Your task to perform on an android device: open app "Viber Messenger" (install if not already installed) Image 0: 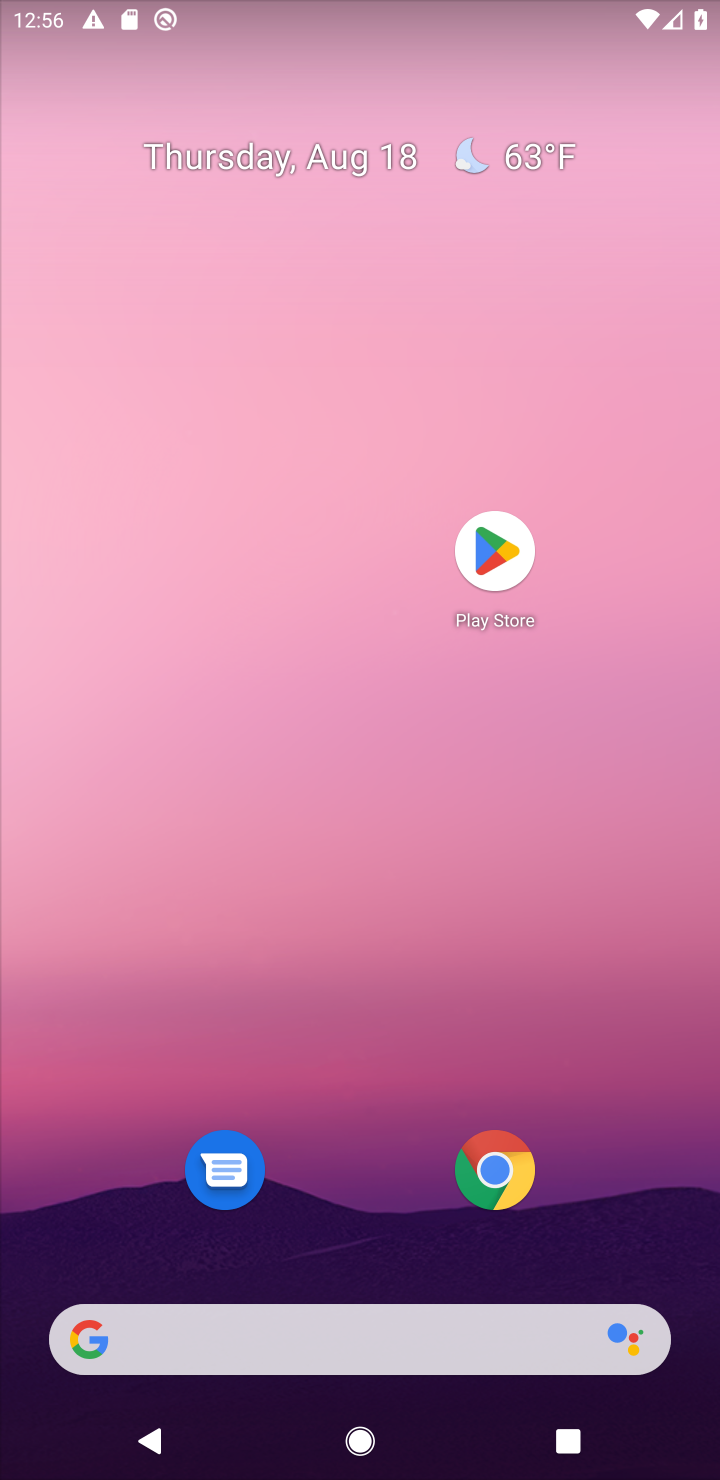
Step 0: click (496, 550)
Your task to perform on an android device: open app "Viber Messenger" (install if not already installed) Image 1: 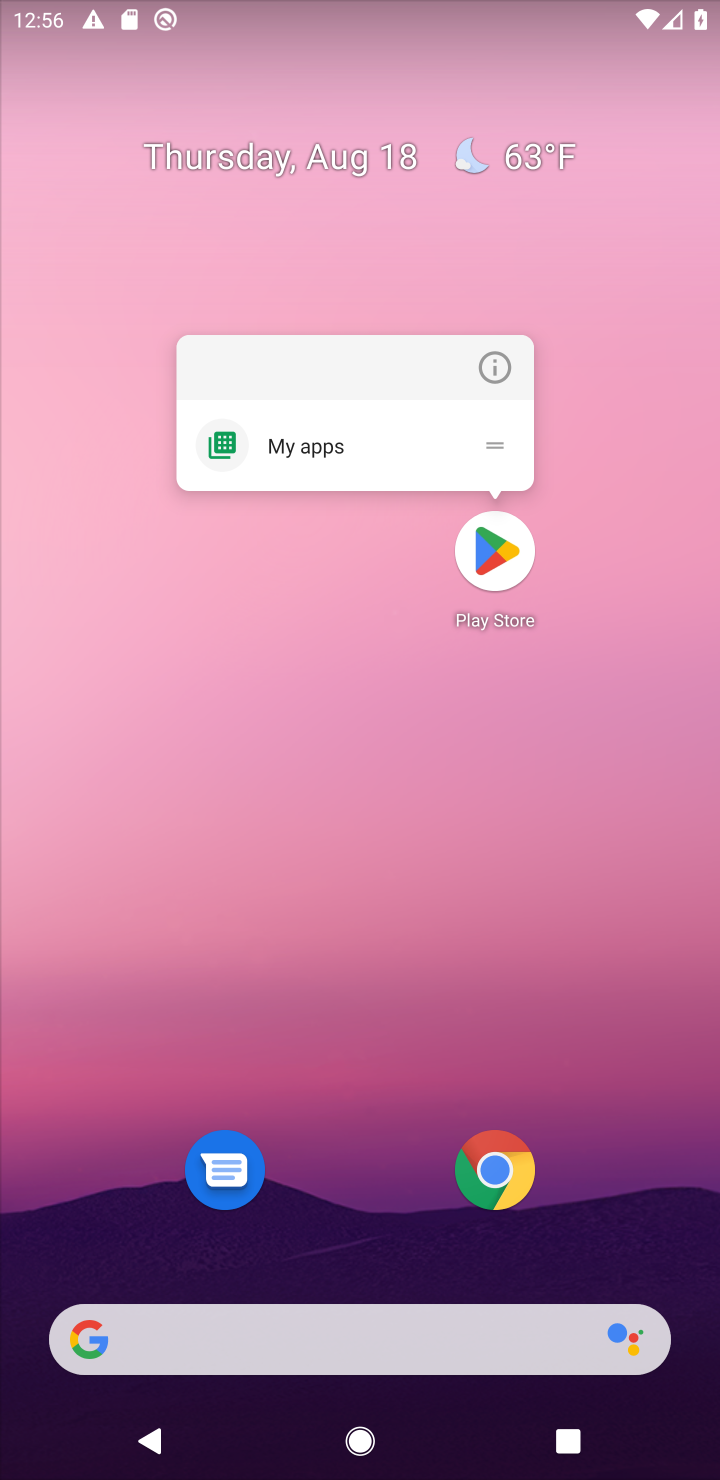
Step 1: click (496, 550)
Your task to perform on an android device: open app "Viber Messenger" (install if not already installed) Image 2: 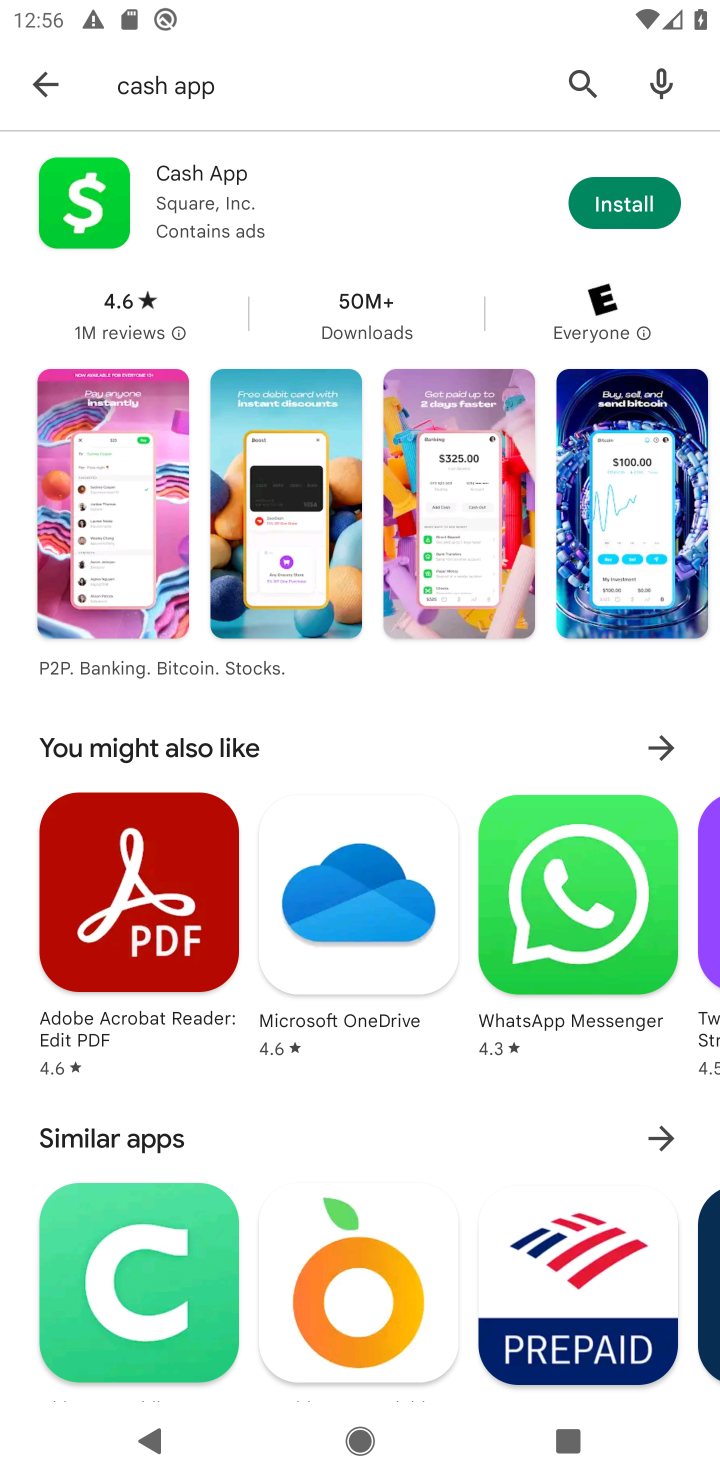
Step 2: click (580, 82)
Your task to perform on an android device: open app "Viber Messenger" (install if not already installed) Image 3: 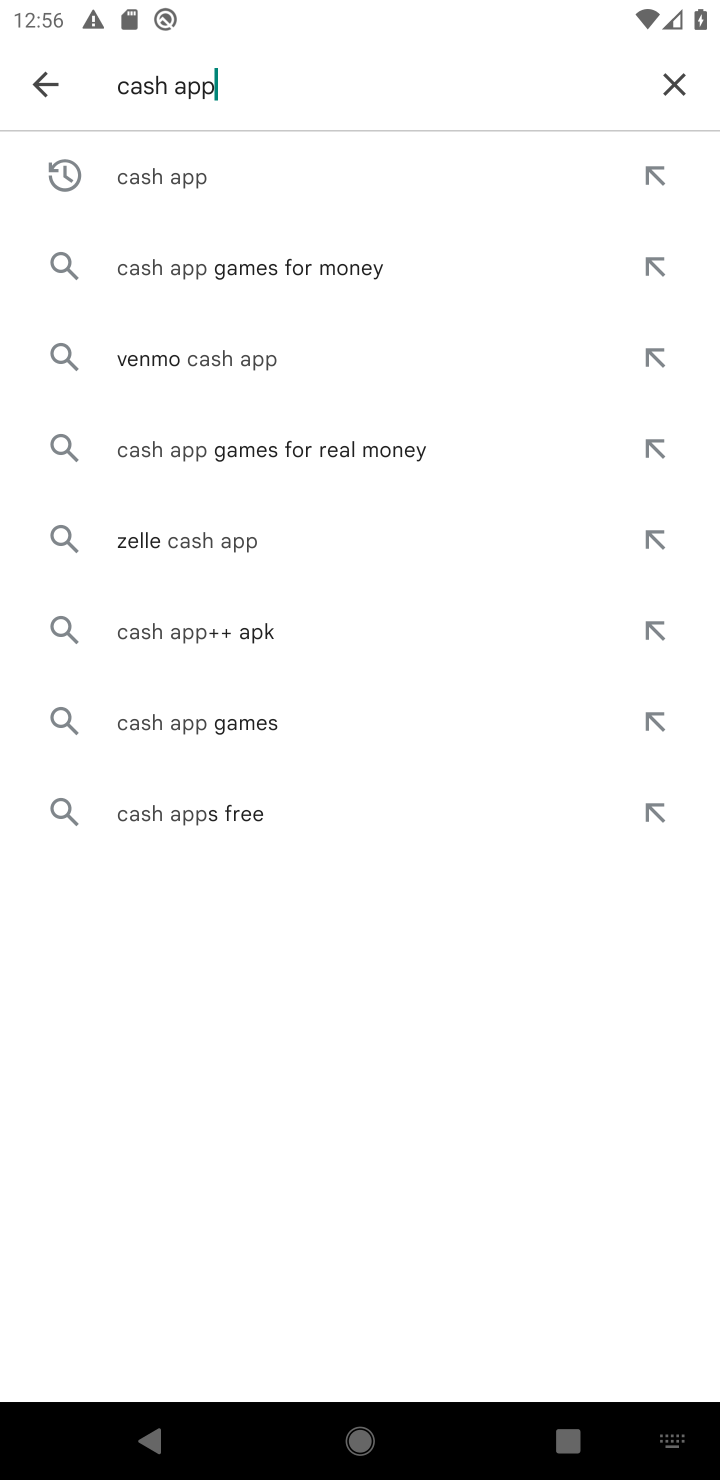
Step 3: click (669, 82)
Your task to perform on an android device: open app "Viber Messenger" (install if not already installed) Image 4: 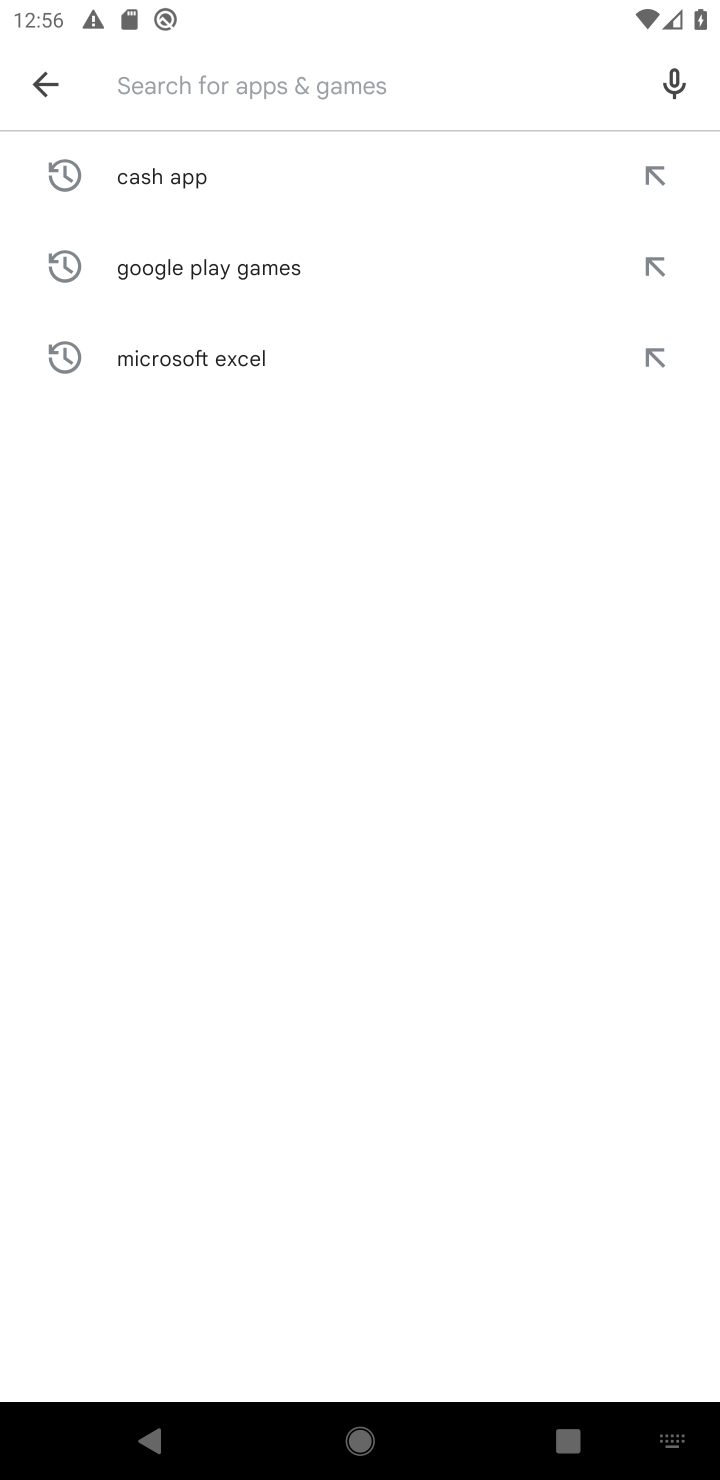
Step 4: type "Viber Messenger"
Your task to perform on an android device: open app "Viber Messenger" (install if not already installed) Image 5: 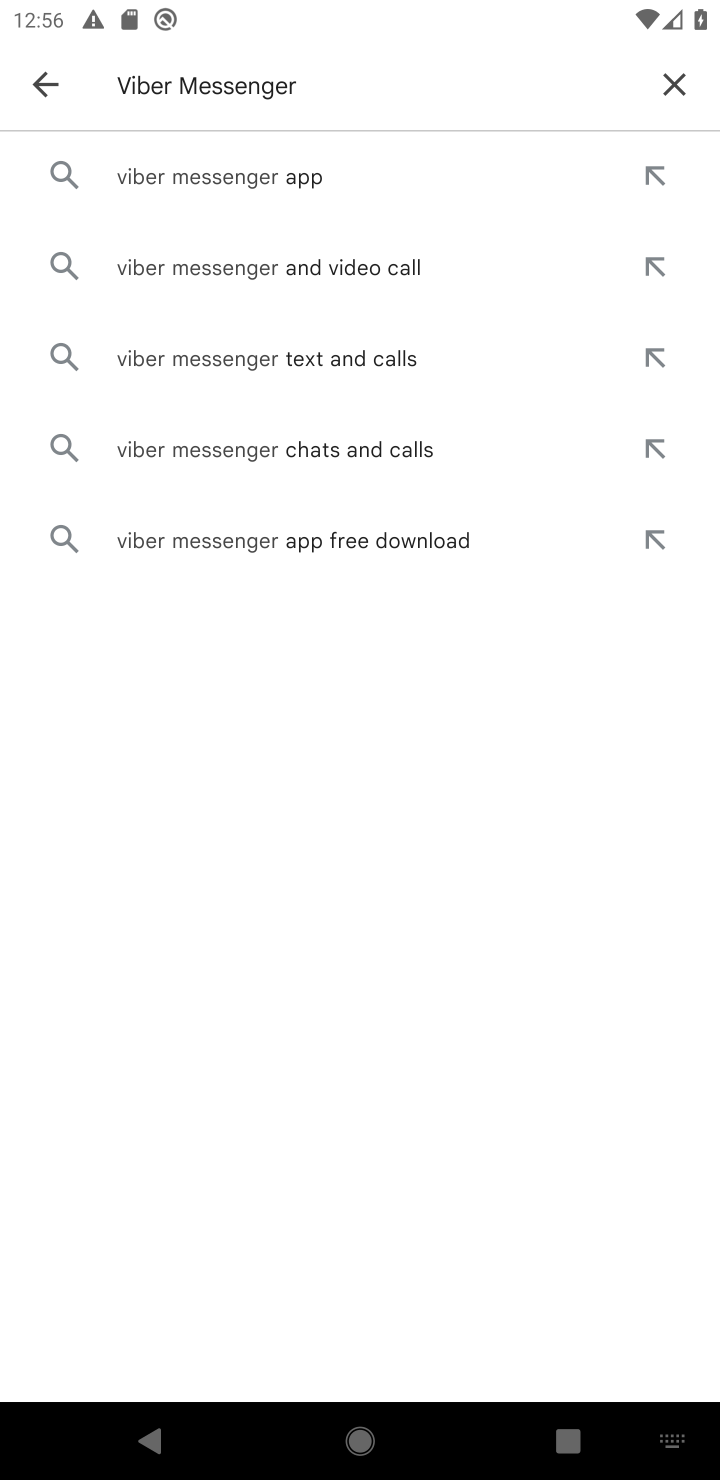
Step 5: click (265, 177)
Your task to perform on an android device: open app "Viber Messenger" (install if not already installed) Image 6: 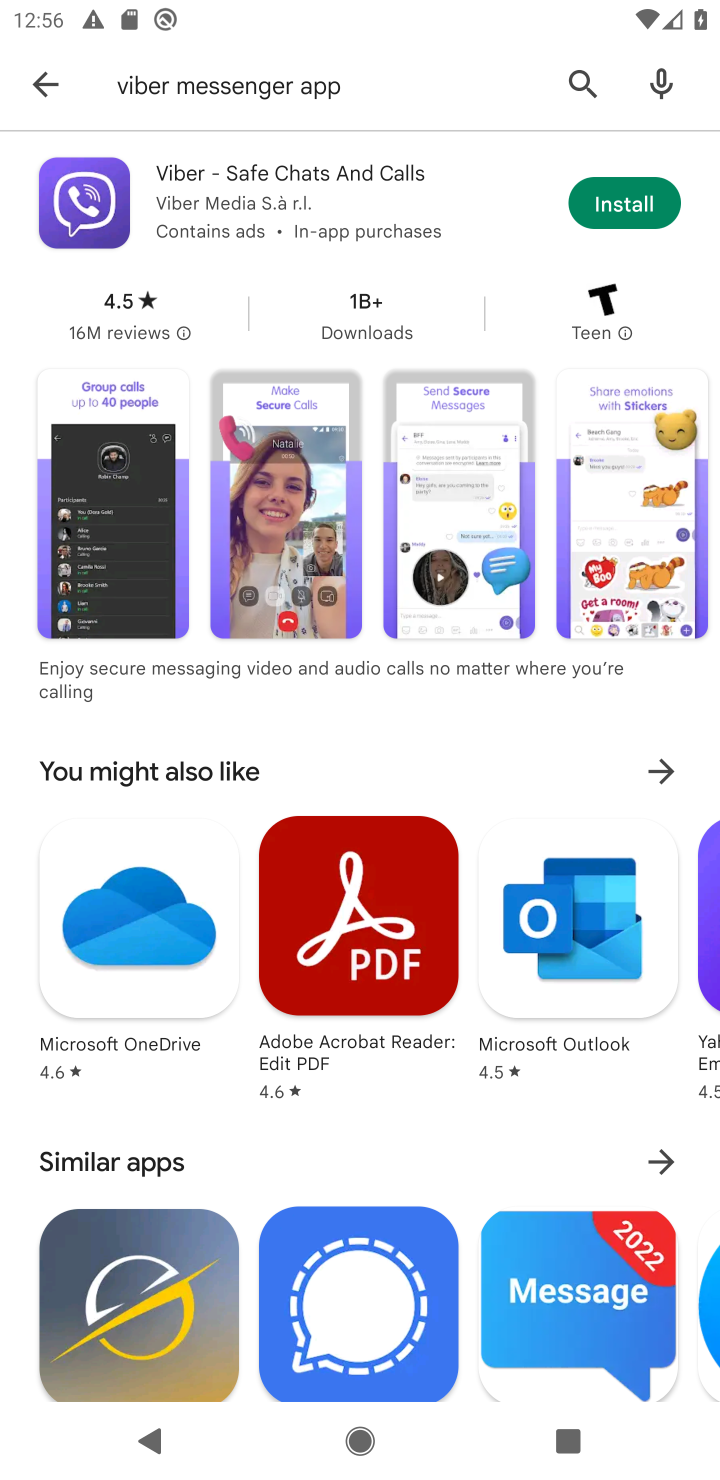
Step 6: click (634, 191)
Your task to perform on an android device: open app "Viber Messenger" (install if not already installed) Image 7: 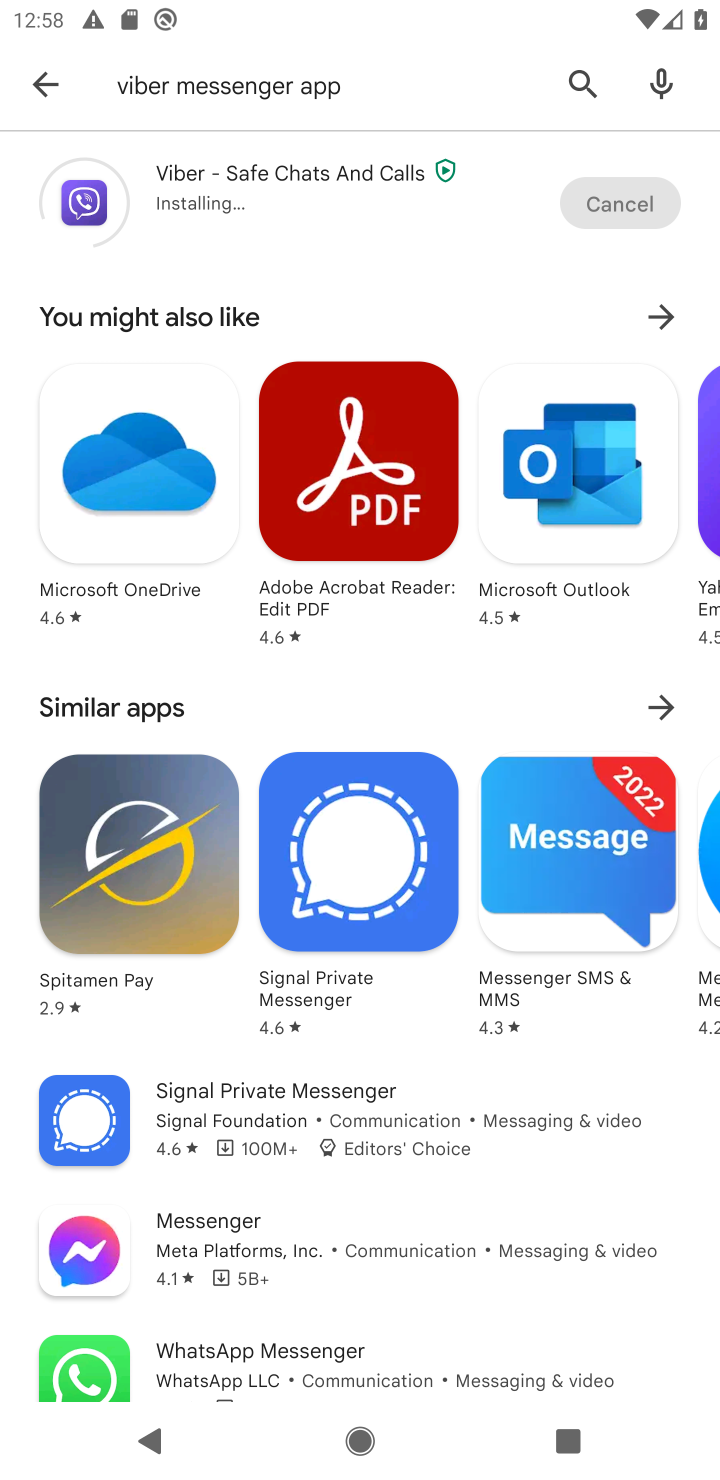
Step 7: click (611, 207)
Your task to perform on an android device: open app "Viber Messenger" (install if not already installed) Image 8: 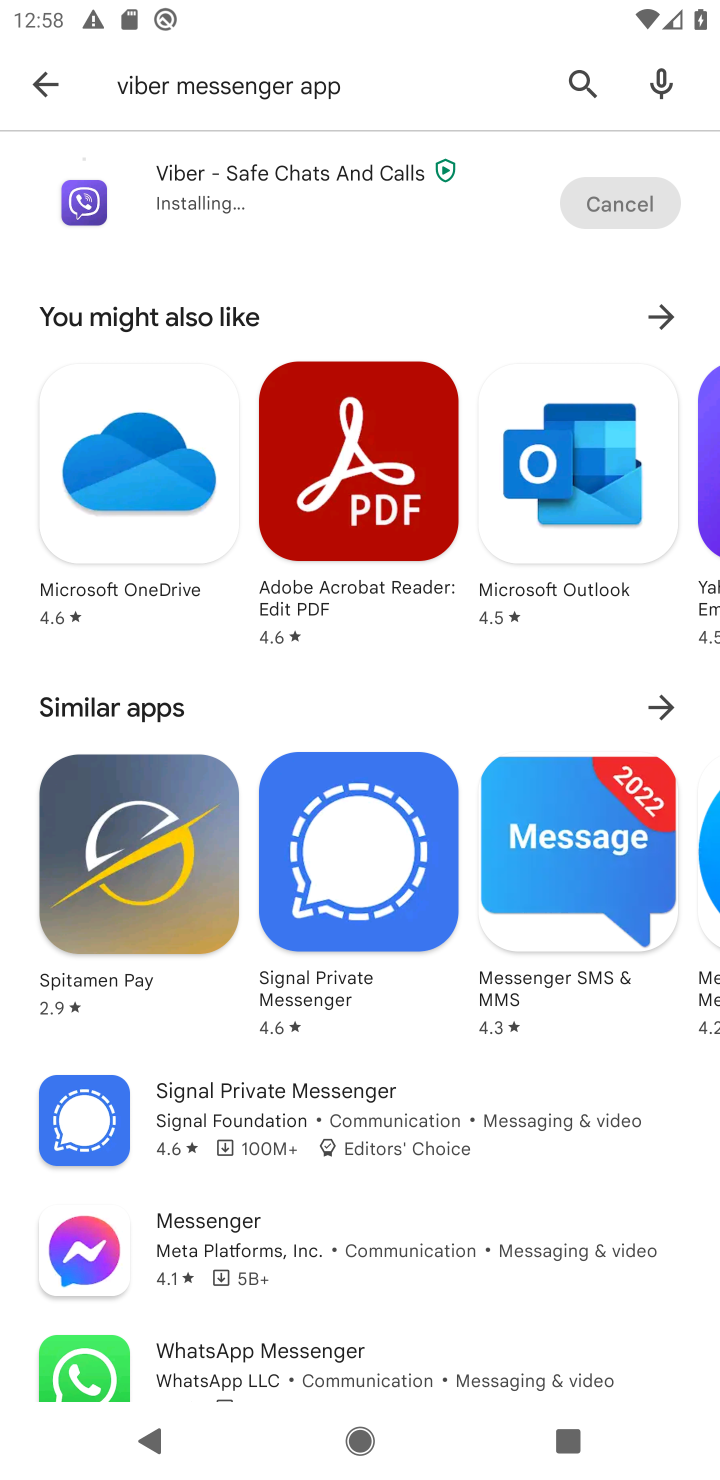
Step 8: click (611, 207)
Your task to perform on an android device: open app "Viber Messenger" (install if not already installed) Image 9: 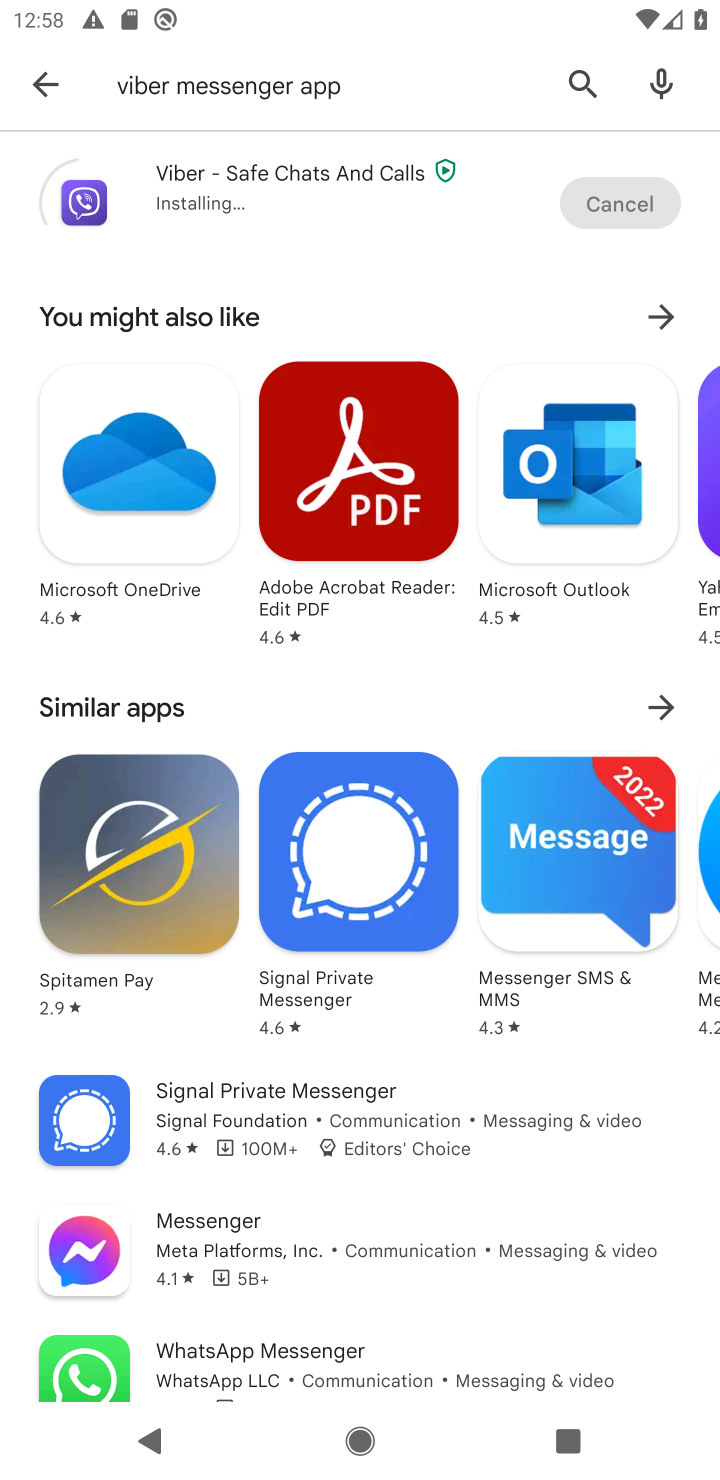
Step 9: task complete